Your task to perform on an android device: Search for razer kraken on bestbuy.com, select the first entry, add it to the cart, then select checkout. Image 0: 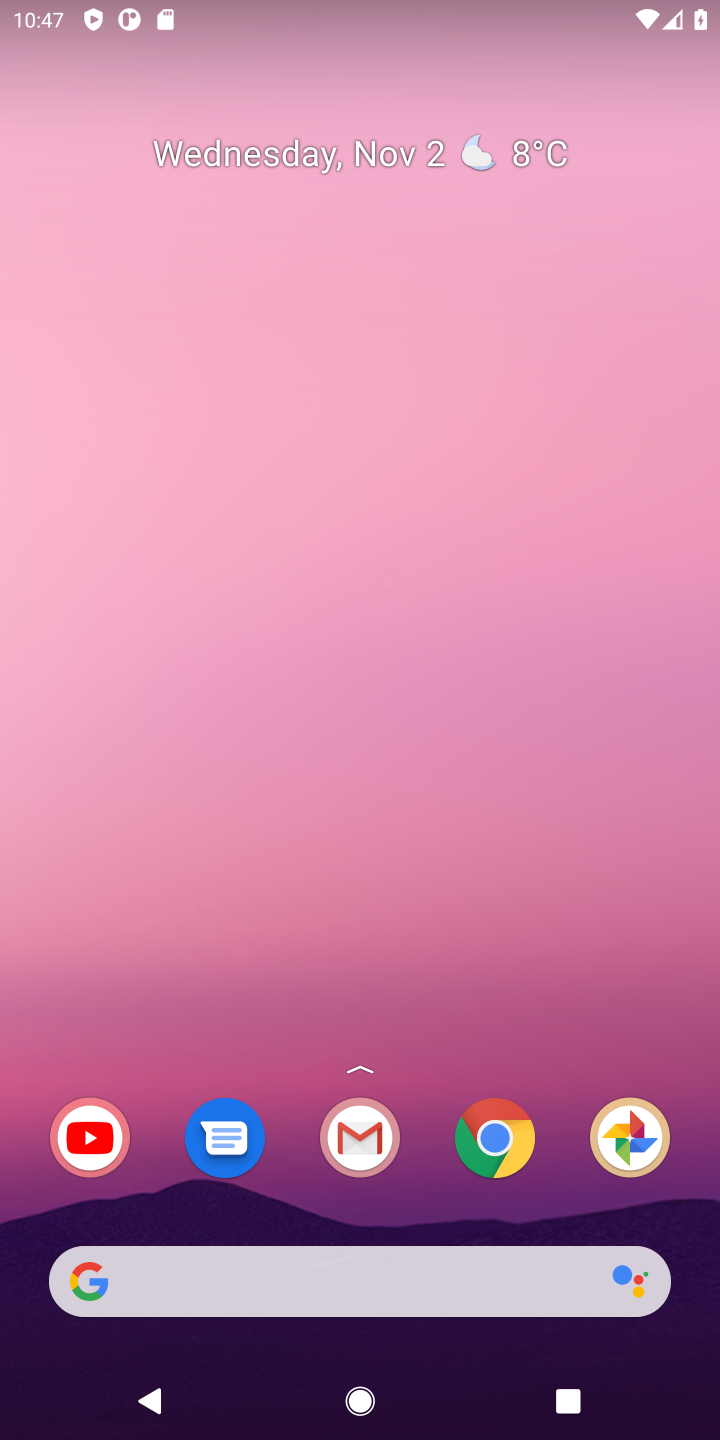
Step 0: task impossible